Your task to perform on an android device: Show me popular games on the Play Store Image 0: 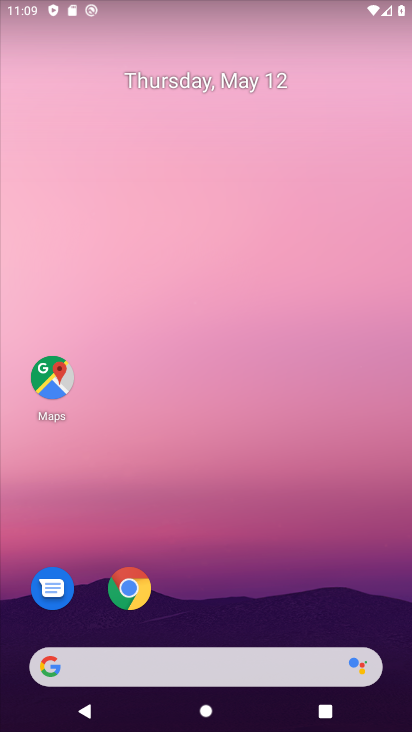
Step 0: drag from (202, 612) to (303, 157)
Your task to perform on an android device: Show me popular games on the Play Store Image 1: 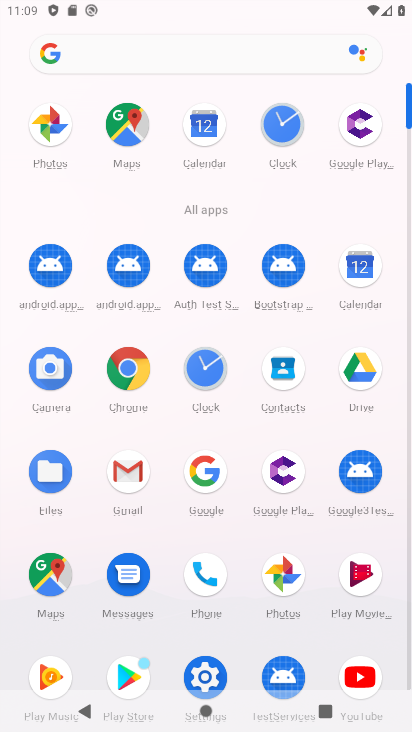
Step 1: click (120, 659)
Your task to perform on an android device: Show me popular games on the Play Store Image 2: 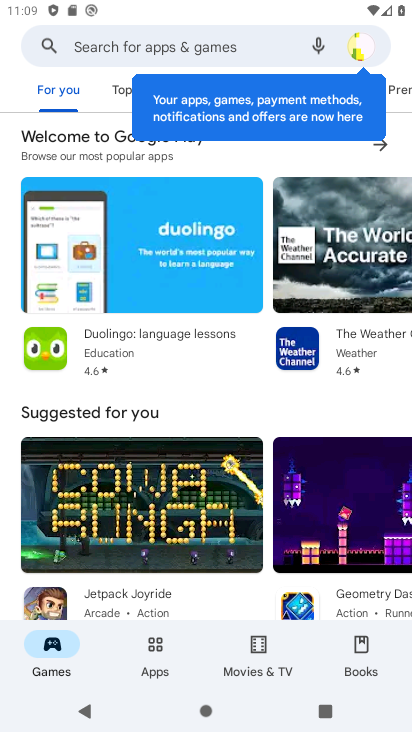
Step 2: drag from (265, 499) to (349, 197)
Your task to perform on an android device: Show me popular games on the Play Store Image 3: 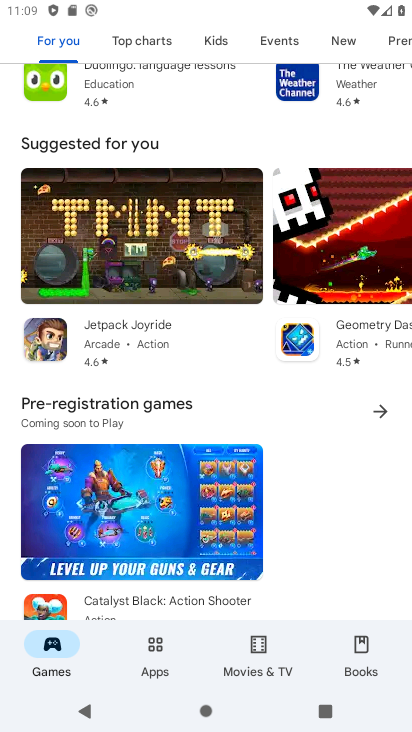
Step 3: drag from (273, 529) to (182, 508)
Your task to perform on an android device: Show me popular games on the Play Store Image 4: 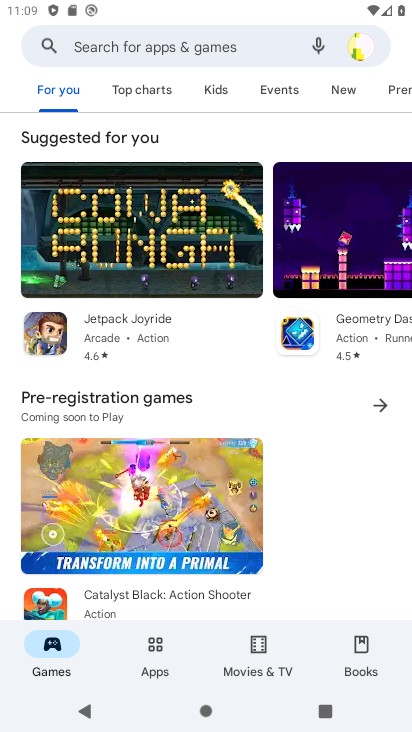
Step 4: drag from (267, 290) to (188, 665)
Your task to perform on an android device: Show me popular games on the Play Store Image 5: 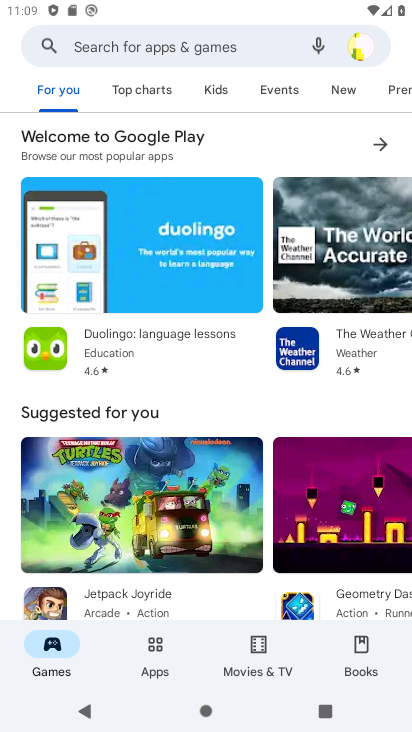
Step 5: drag from (233, 468) to (355, 53)
Your task to perform on an android device: Show me popular games on the Play Store Image 6: 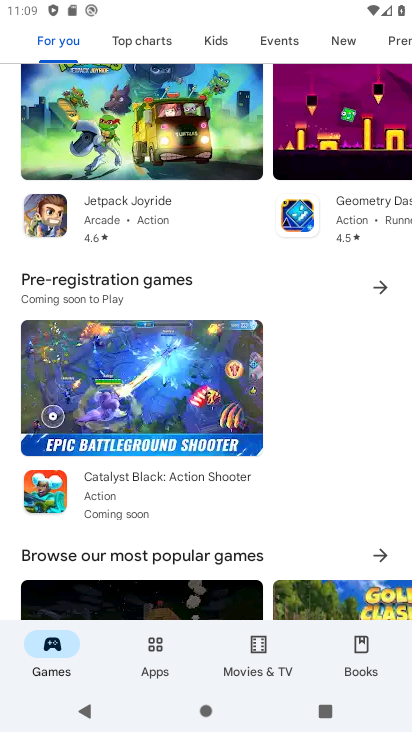
Step 6: drag from (278, 389) to (370, 0)
Your task to perform on an android device: Show me popular games on the Play Store Image 7: 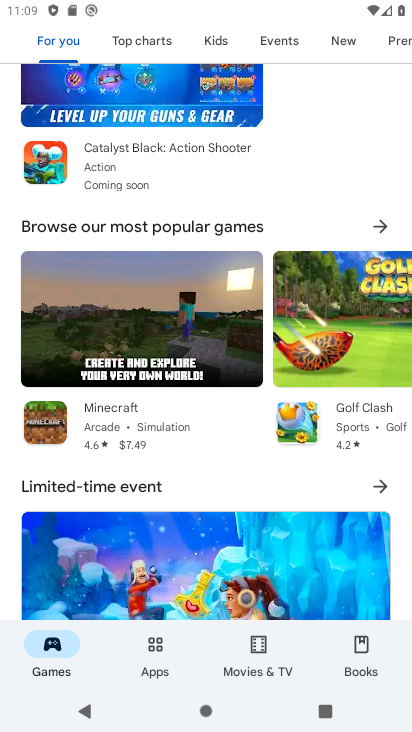
Step 7: click (379, 227)
Your task to perform on an android device: Show me popular games on the Play Store Image 8: 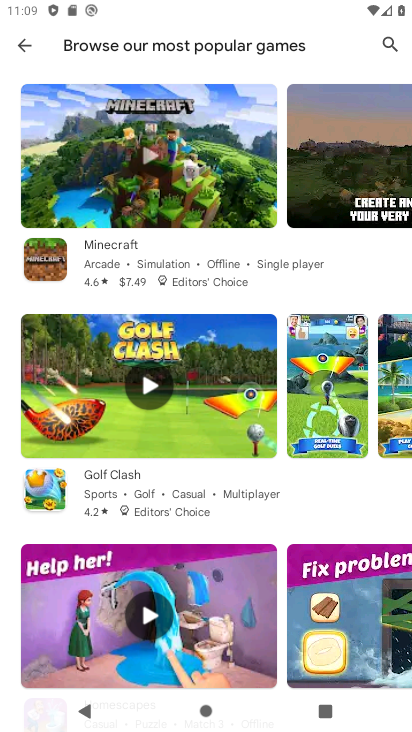
Step 8: task complete